Your task to perform on an android device: Go to Reddit.com Image 0: 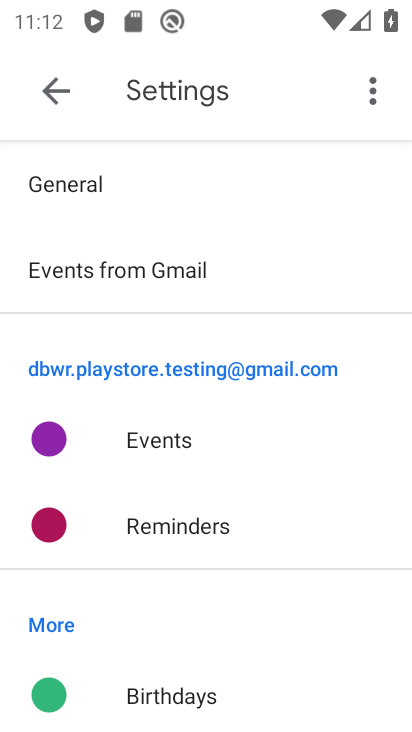
Step 0: press back button
Your task to perform on an android device: Go to Reddit.com Image 1: 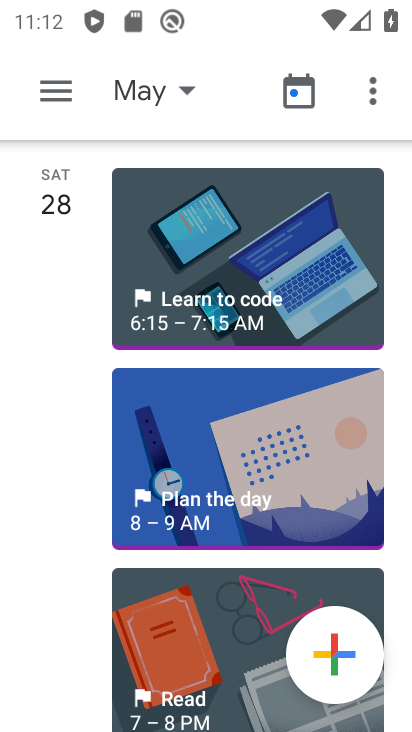
Step 1: press home button
Your task to perform on an android device: Go to Reddit.com Image 2: 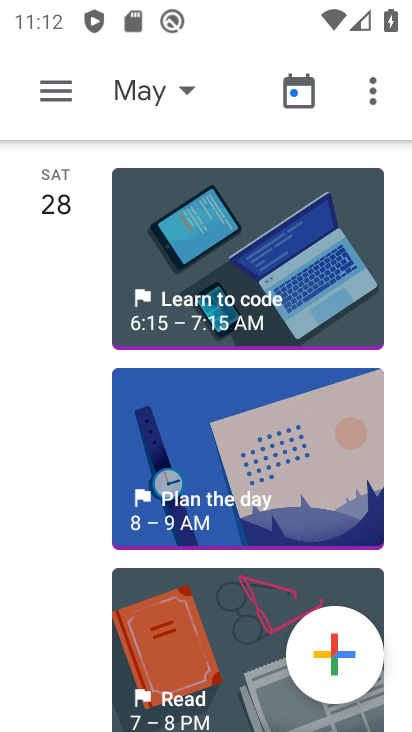
Step 2: press home button
Your task to perform on an android device: Go to Reddit.com Image 3: 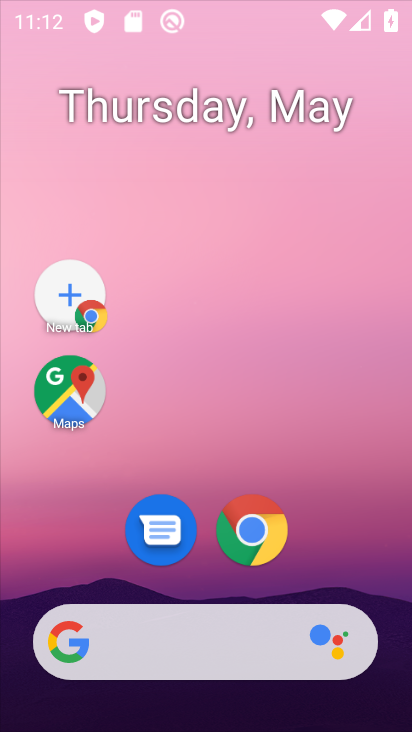
Step 3: press home button
Your task to perform on an android device: Go to Reddit.com Image 4: 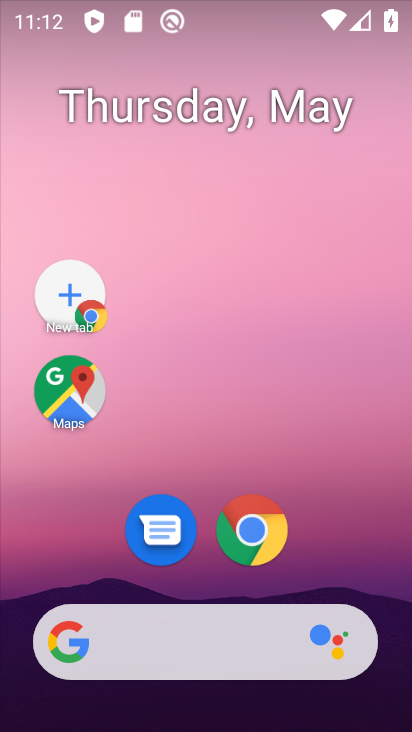
Step 4: press home button
Your task to perform on an android device: Go to Reddit.com Image 5: 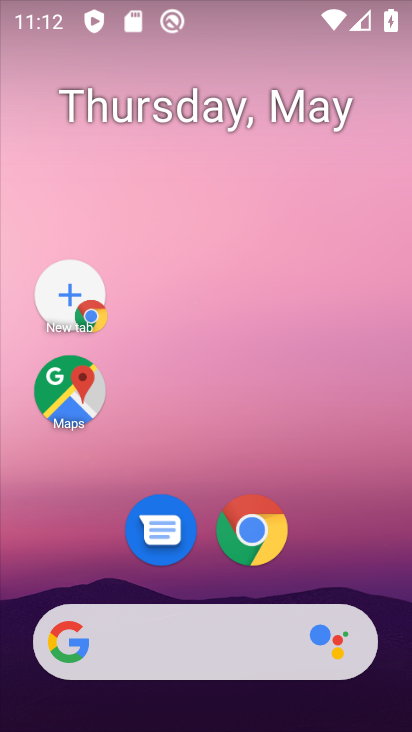
Step 5: drag from (333, 707) to (152, 148)
Your task to perform on an android device: Go to Reddit.com Image 6: 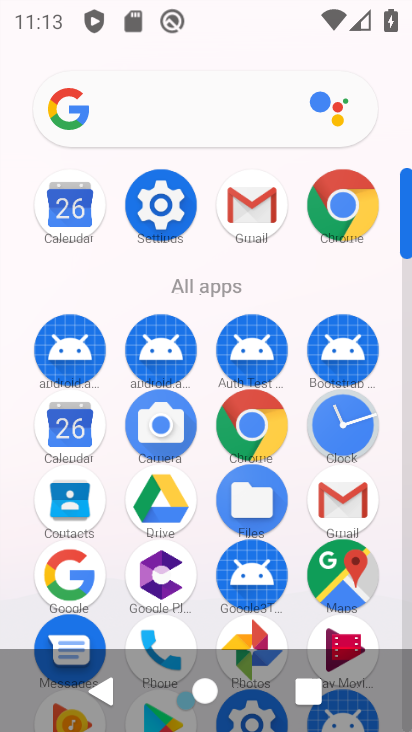
Step 6: click (322, 196)
Your task to perform on an android device: Go to Reddit.com Image 7: 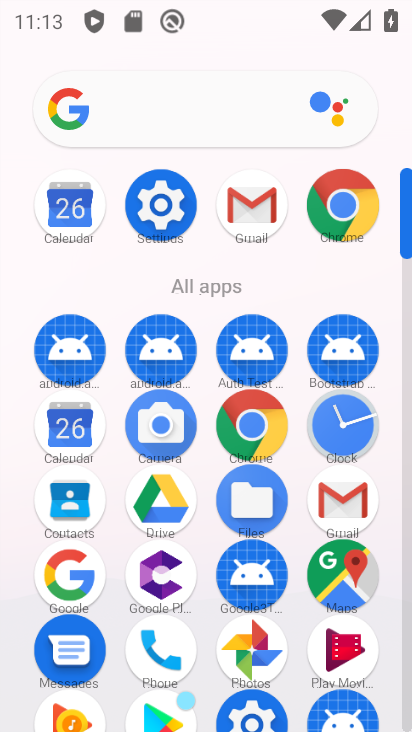
Step 7: click (323, 197)
Your task to perform on an android device: Go to Reddit.com Image 8: 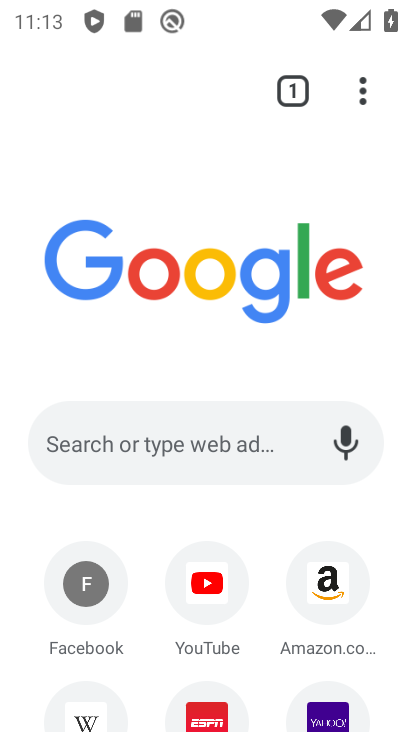
Step 8: click (110, 435)
Your task to perform on an android device: Go to Reddit.com Image 9: 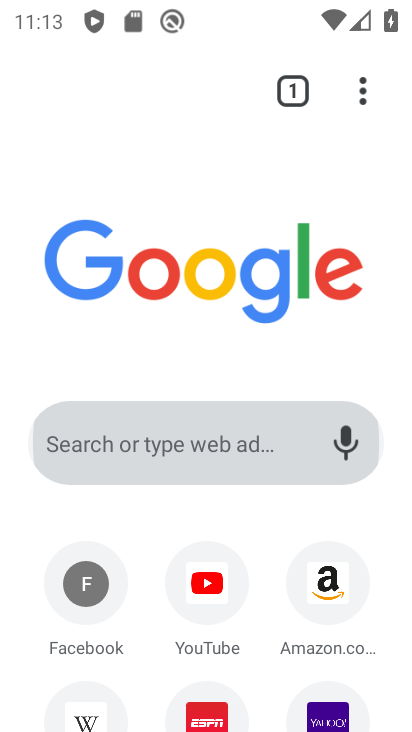
Step 9: click (110, 435)
Your task to perform on an android device: Go to Reddit.com Image 10: 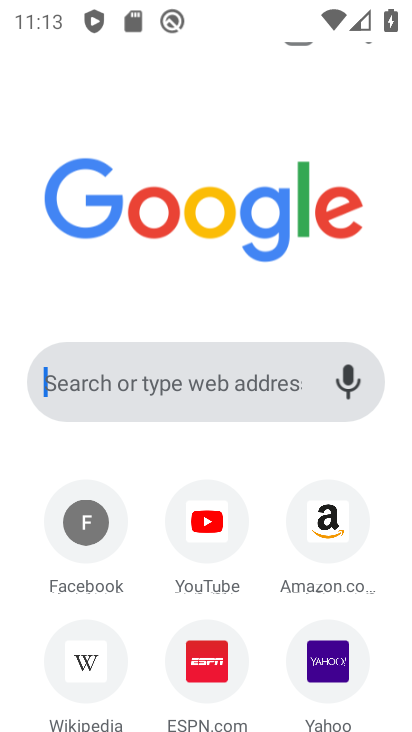
Step 10: click (110, 435)
Your task to perform on an android device: Go to Reddit.com Image 11: 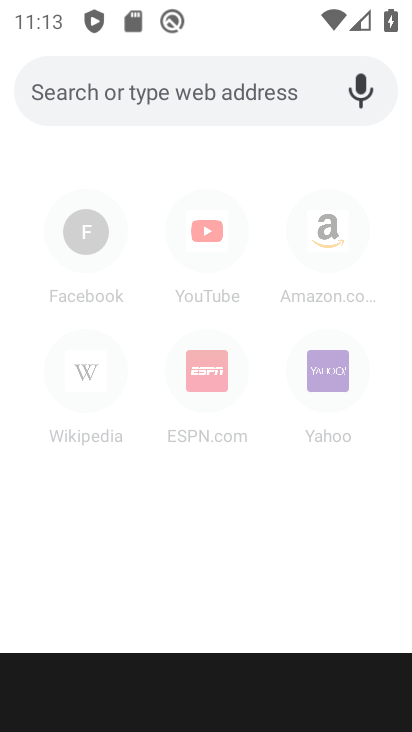
Step 11: click (110, 436)
Your task to perform on an android device: Go to Reddit.com Image 12: 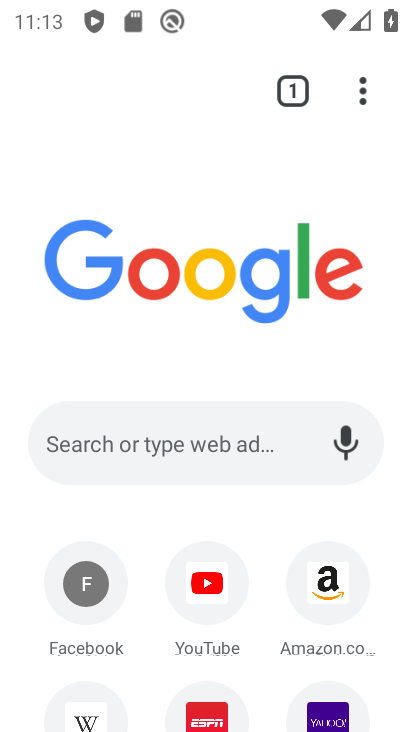
Step 12: click (86, 435)
Your task to perform on an android device: Go to Reddit.com Image 13: 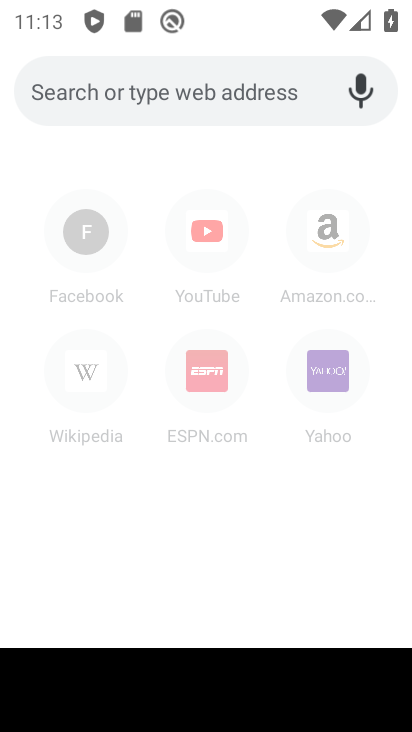
Step 13: type "reddit.com"
Your task to perform on an android device: Go to Reddit.com Image 14: 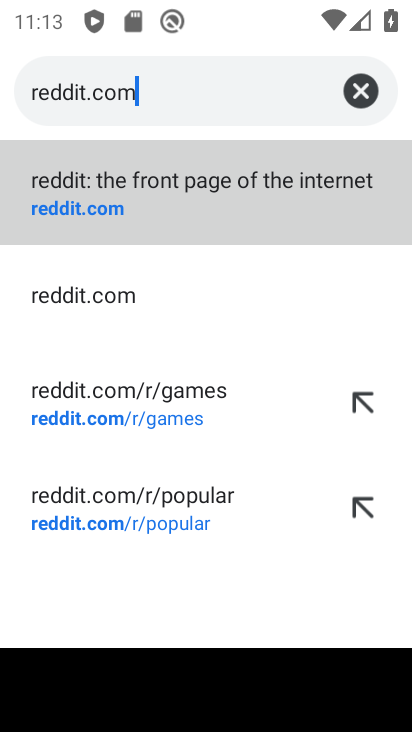
Step 14: click (96, 200)
Your task to perform on an android device: Go to Reddit.com Image 15: 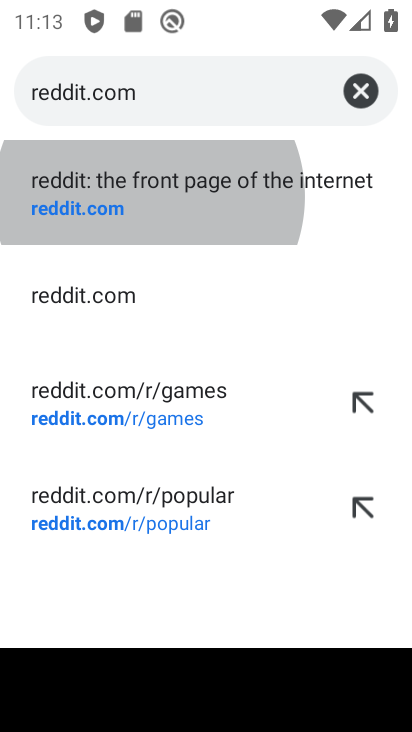
Step 15: click (96, 200)
Your task to perform on an android device: Go to Reddit.com Image 16: 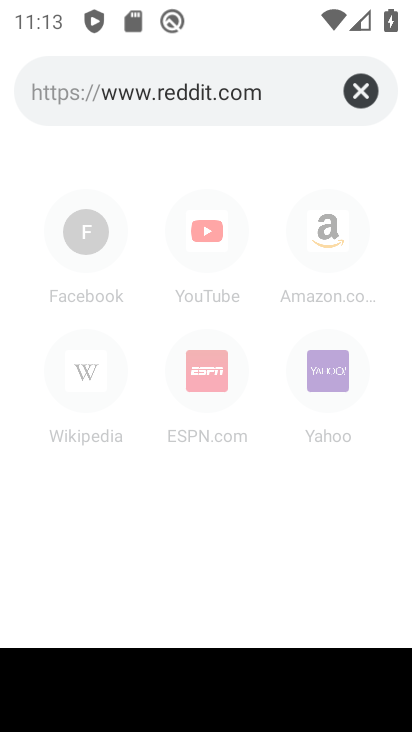
Step 16: click (96, 200)
Your task to perform on an android device: Go to Reddit.com Image 17: 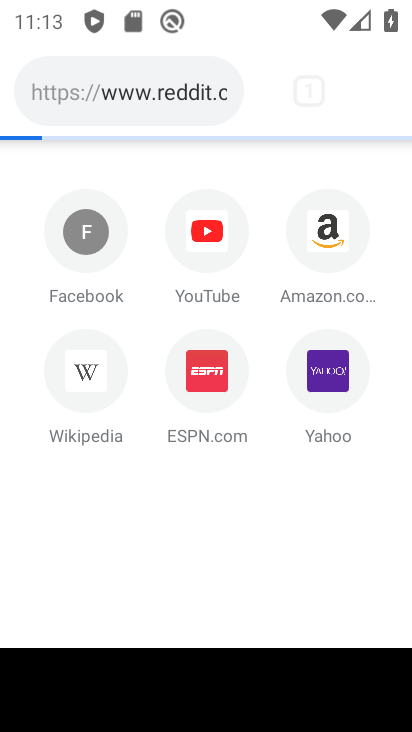
Step 17: click (96, 199)
Your task to perform on an android device: Go to Reddit.com Image 18: 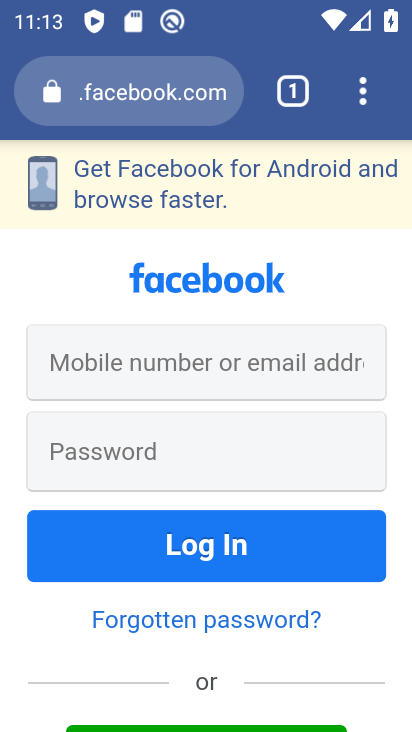
Step 18: task complete